Your task to perform on an android device: remove spam from my inbox in the gmail app Image 0: 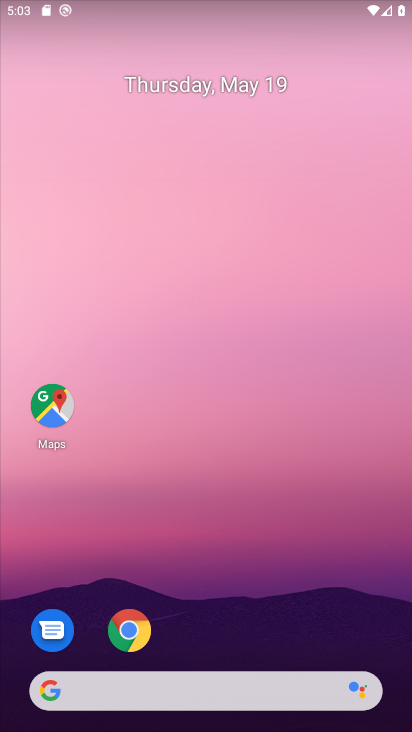
Step 0: drag from (243, 527) to (229, 1)
Your task to perform on an android device: remove spam from my inbox in the gmail app Image 1: 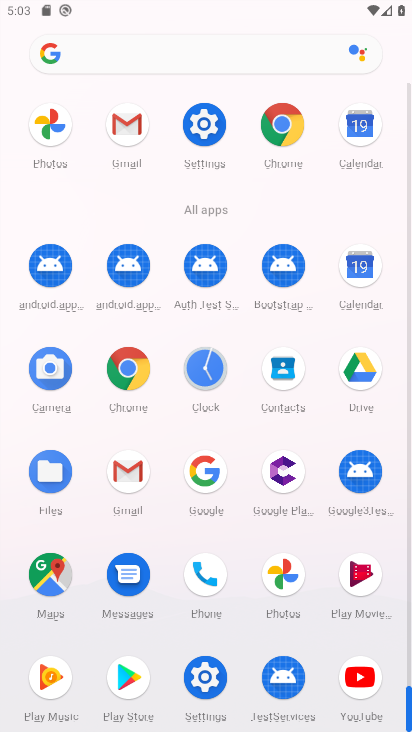
Step 1: drag from (0, 515) to (15, 188)
Your task to perform on an android device: remove spam from my inbox in the gmail app Image 2: 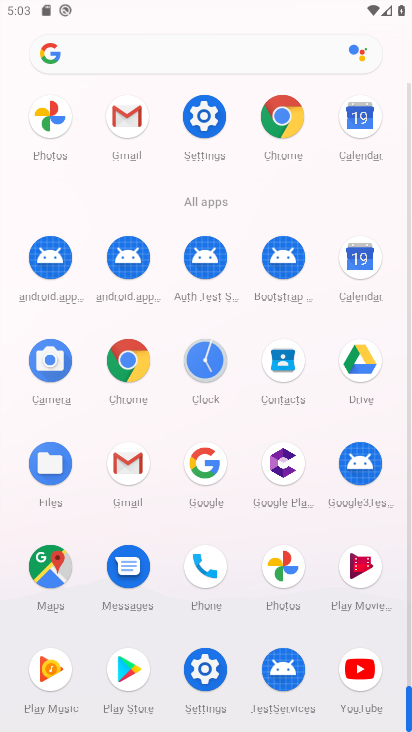
Step 2: click (125, 456)
Your task to perform on an android device: remove spam from my inbox in the gmail app Image 3: 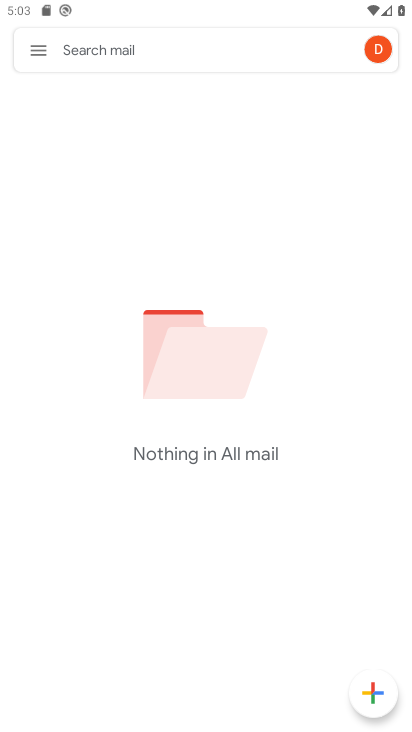
Step 3: click (30, 59)
Your task to perform on an android device: remove spam from my inbox in the gmail app Image 4: 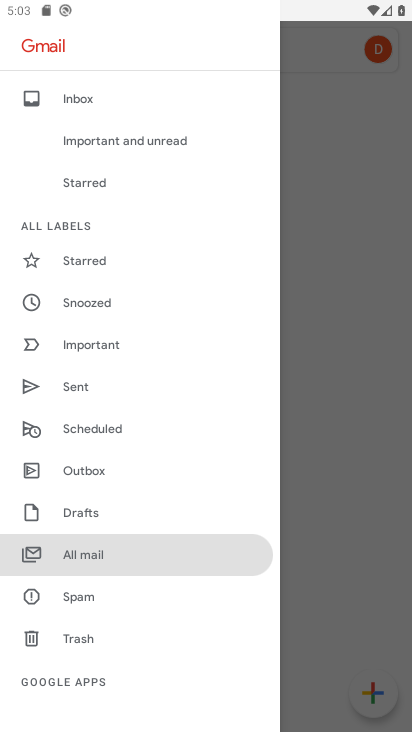
Step 4: click (85, 599)
Your task to perform on an android device: remove spam from my inbox in the gmail app Image 5: 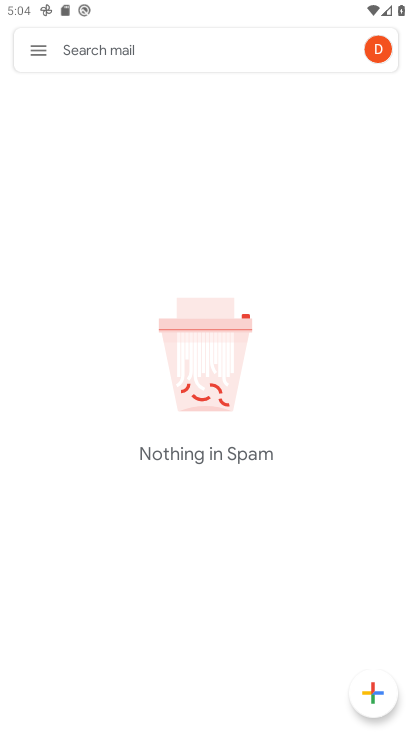
Step 5: task complete